Your task to perform on an android device: Open the calendar app, open the side menu, and click the "Day" option Image 0: 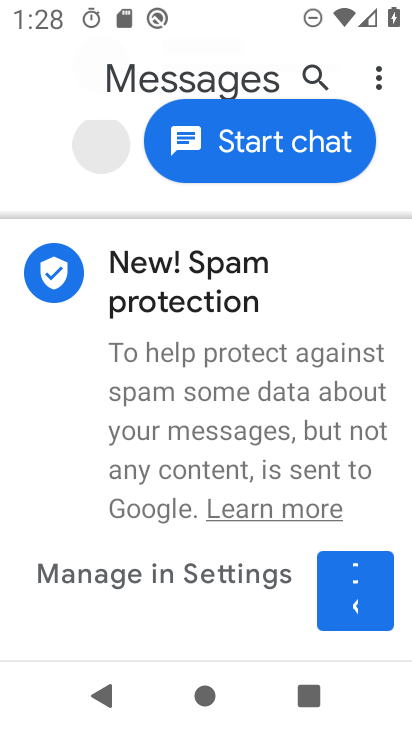
Step 0: press home button
Your task to perform on an android device: Open the calendar app, open the side menu, and click the "Day" option Image 1: 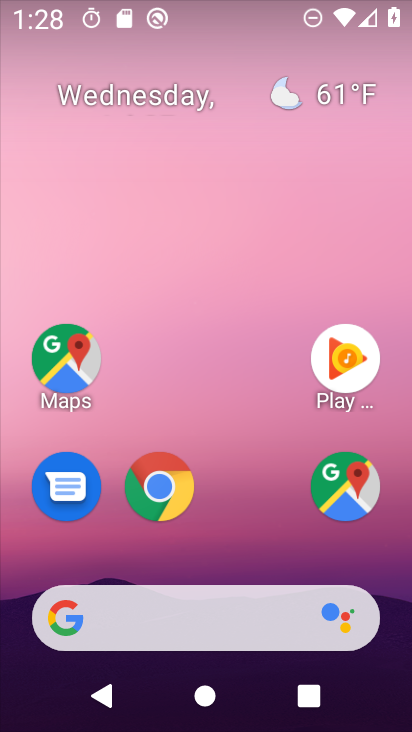
Step 1: drag from (261, 506) to (275, 213)
Your task to perform on an android device: Open the calendar app, open the side menu, and click the "Day" option Image 2: 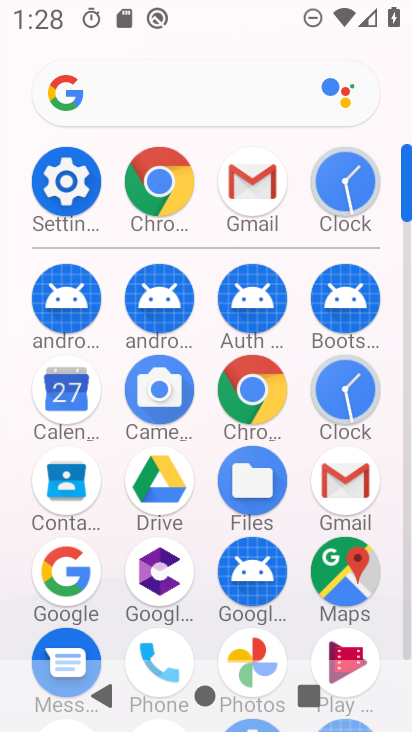
Step 2: click (69, 412)
Your task to perform on an android device: Open the calendar app, open the side menu, and click the "Day" option Image 3: 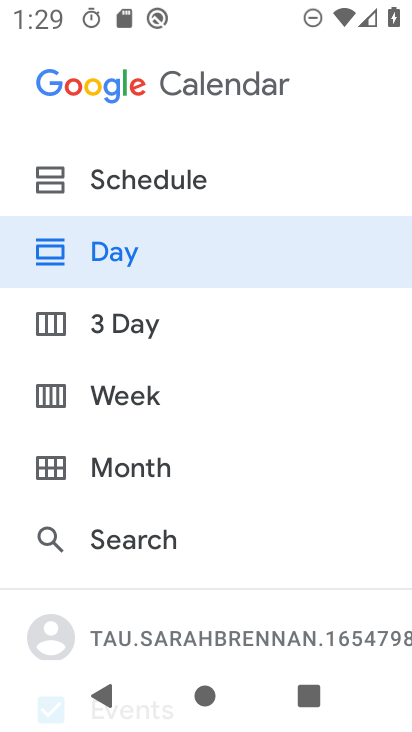
Step 3: click (235, 272)
Your task to perform on an android device: Open the calendar app, open the side menu, and click the "Day" option Image 4: 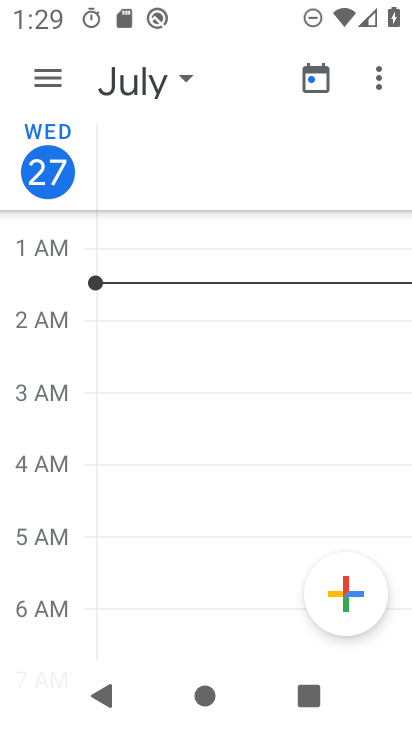
Step 4: task complete